Your task to perform on an android device: What's the weather? Image 0: 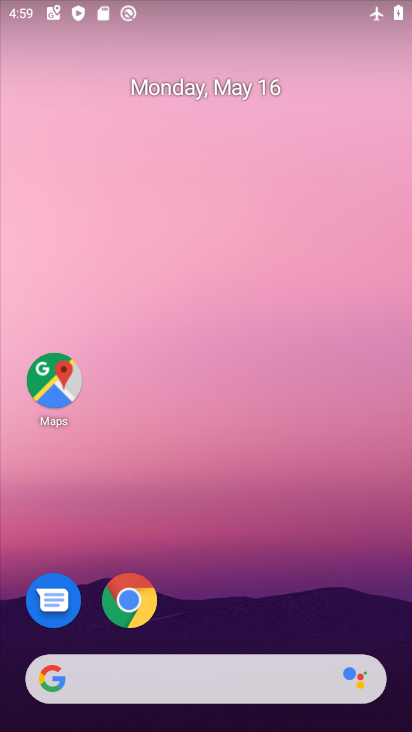
Step 0: click (222, 674)
Your task to perform on an android device: What's the weather? Image 1: 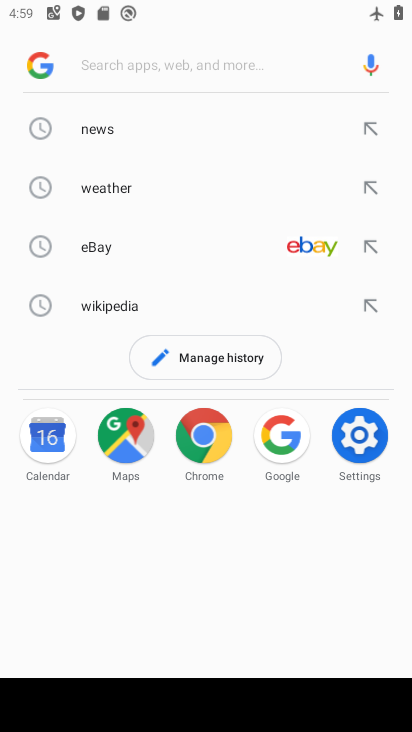
Step 1: click (131, 193)
Your task to perform on an android device: What's the weather? Image 2: 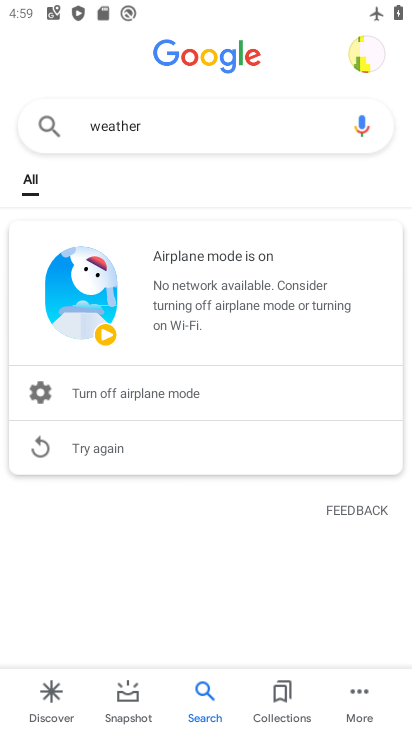
Step 2: task complete